Your task to perform on an android device: change the clock style Image 0: 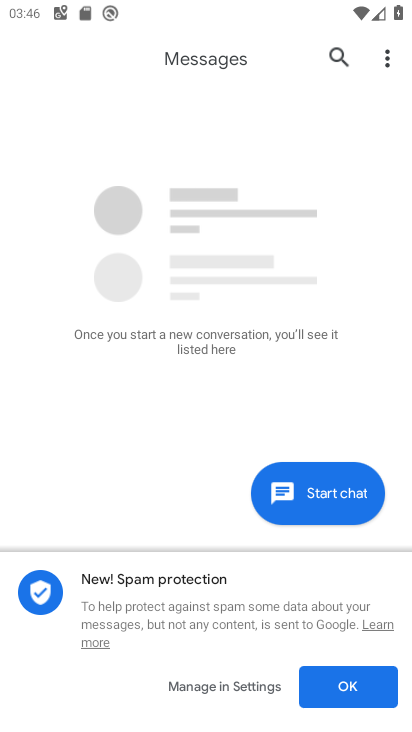
Step 0: press home button
Your task to perform on an android device: change the clock style Image 1: 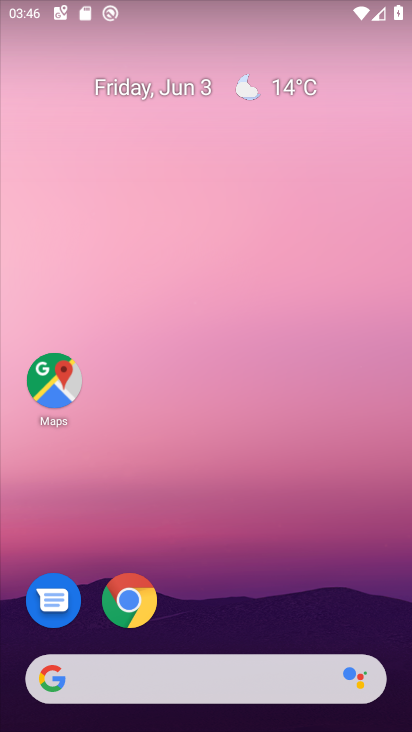
Step 1: drag from (241, 626) to (238, 183)
Your task to perform on an android device: change the clock style Image 2: 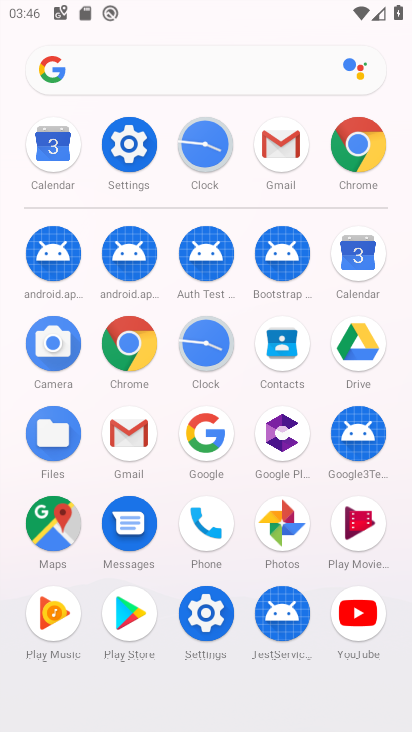
Step 2: click (205, 146)
Your task to perform on an android device: change the clock style Image 3: 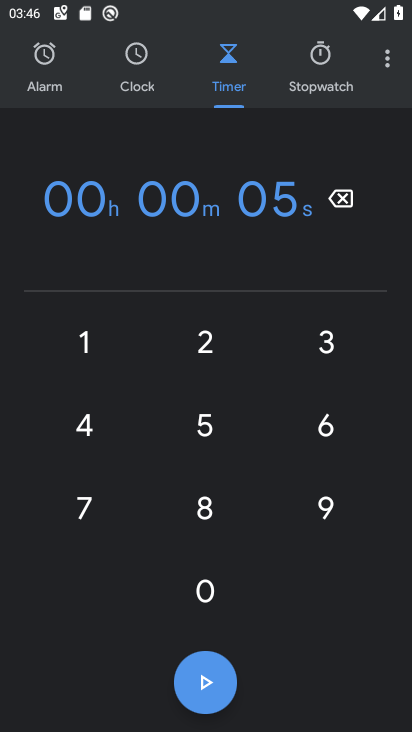
Step 3: click (383, 50)
Your task to perform on an android device: change the clock style Image 4: 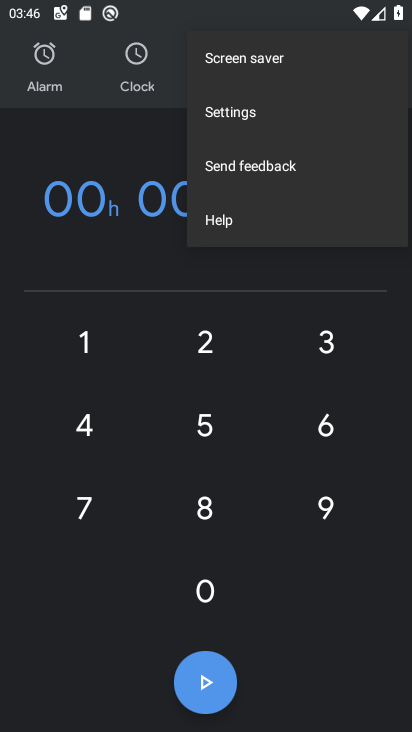
Step 4: click (243, 115)
Your task to perform on an android device: change the clock style Image 5: 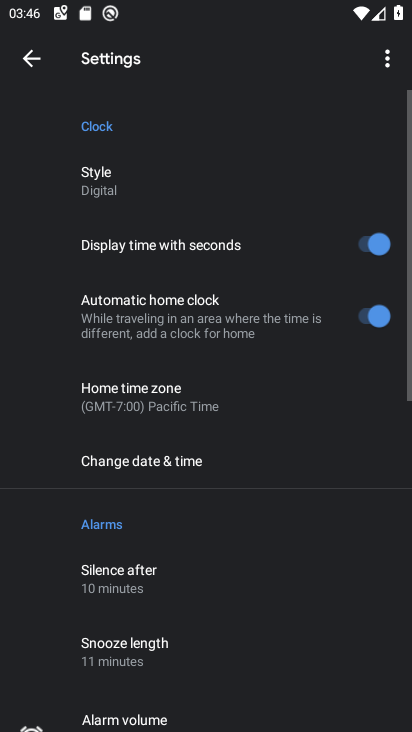
Step 5: click (111, 179)
Your task to perform on an android device: change the clock style Image 6: 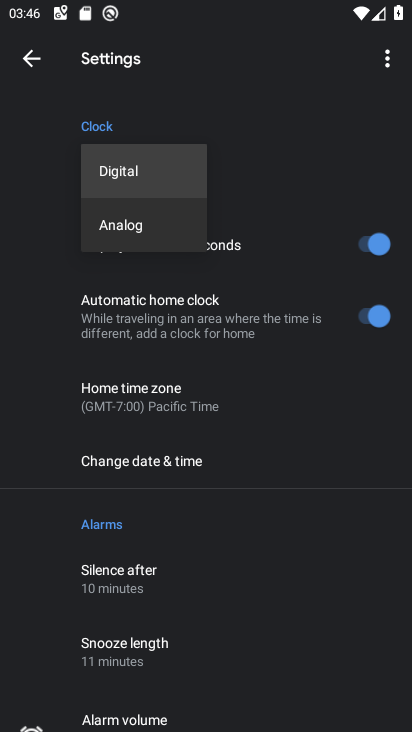
Step 6: click (130, 226)
Your task to perform on an android device: change the clock style Image 7: 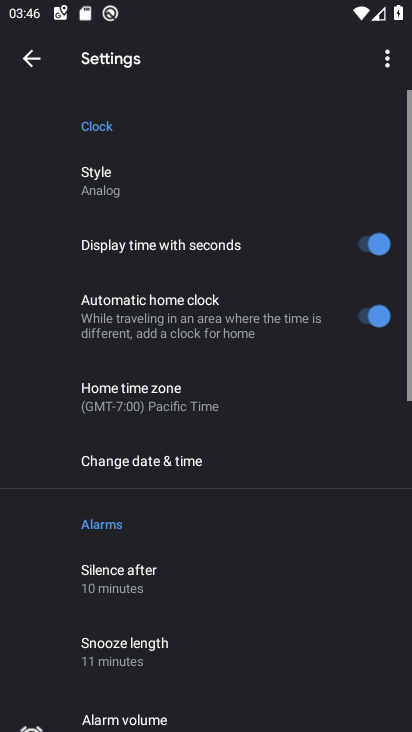
Step 7: task complete